Your task to perform on an android device: open a bookmark in the chrome app Image 0: 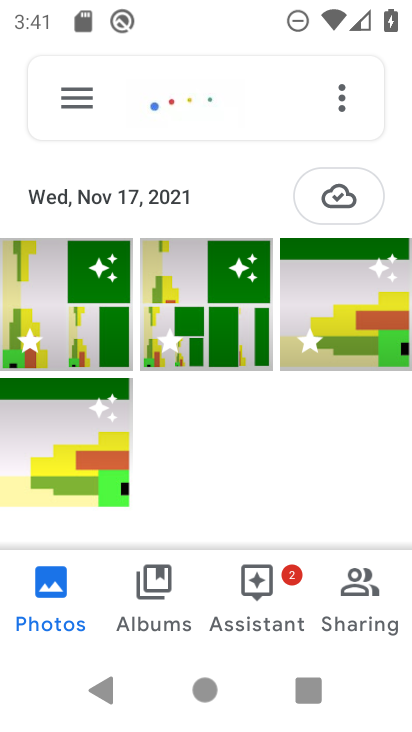
Step 0: press home button
Your task to perform on an android device: open a bookmark in the chrome app Image 1: 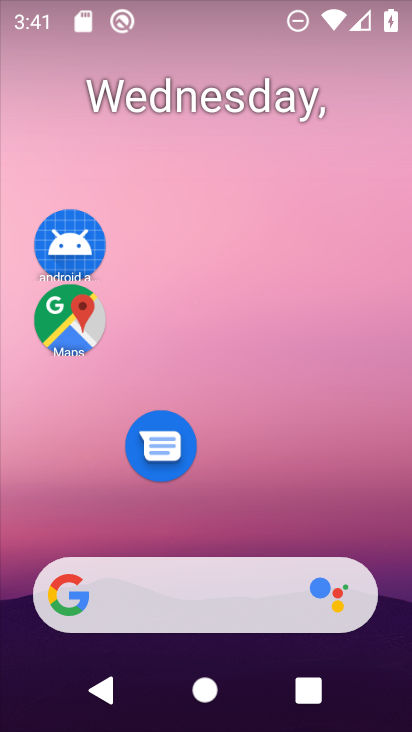
Step 1: drag from (272, 538) to (249, 65)
Your task to perform on an android device: open a bookmark in the chrome app Image 2: 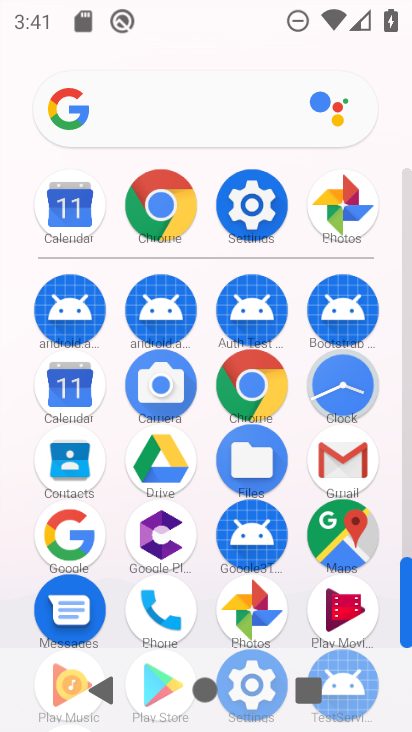
Step 2: click (154, 186)
Your task to perform on an android device: open a bookmark in the chrome app Image 3: 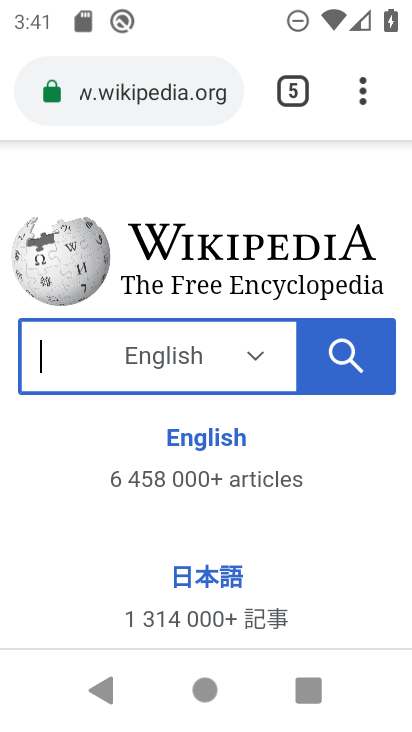
Step 3: click (365, 71)
Your task to perform on an android device: open a bookmark in the chrome app Image 4: 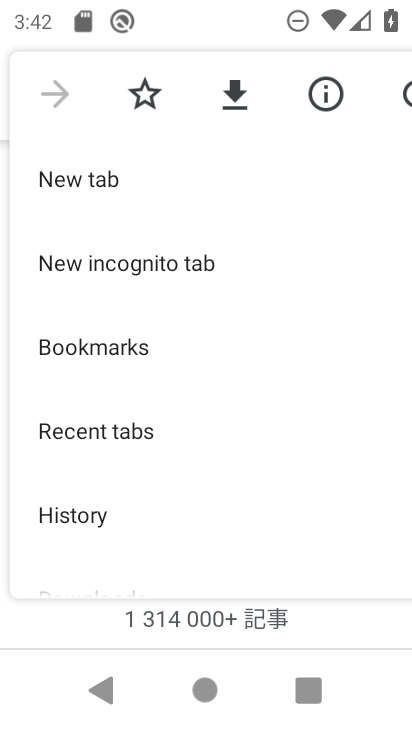
Step 4: click (224, 339)
Your task to perform on an android device: open a bookmark in the chrome app Image 5: 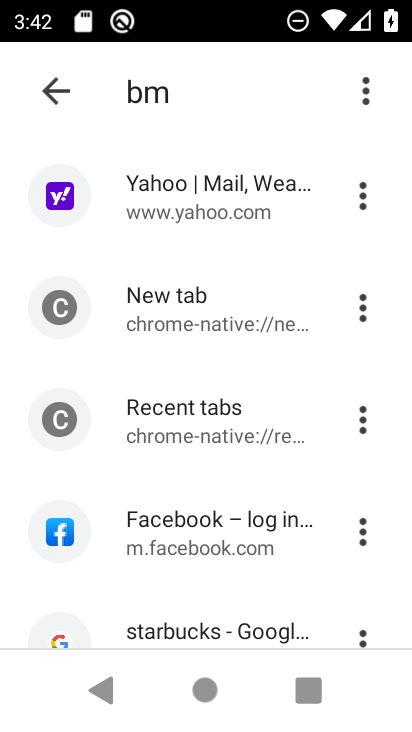
Step 5: task complete